Your task to perform on an android device: refresh tabs in the chrome app Image 0: 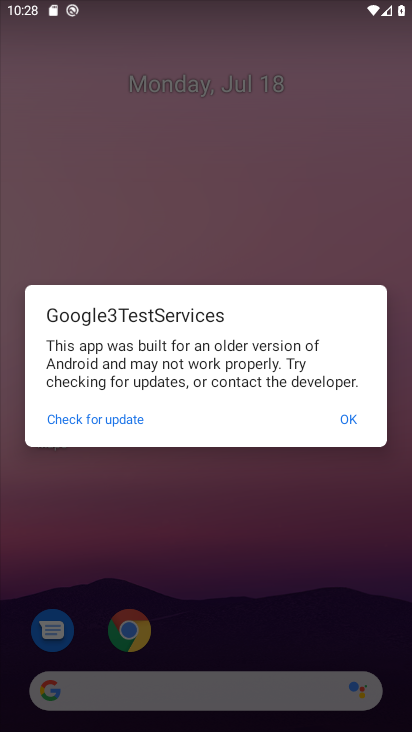
Step 0: click (358, 414)
Your task to perform on an android device: refresh tabs in the chrome app Image 1: 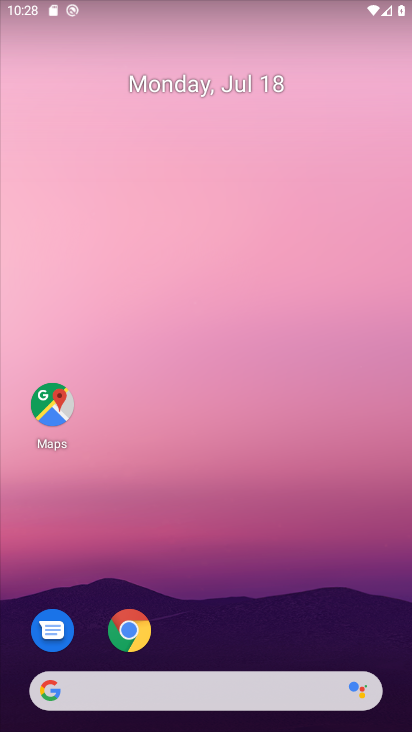
Step 1: click (121, 640)
Your task to perform on an android device: refresh tabs in the chrome app Image 2: 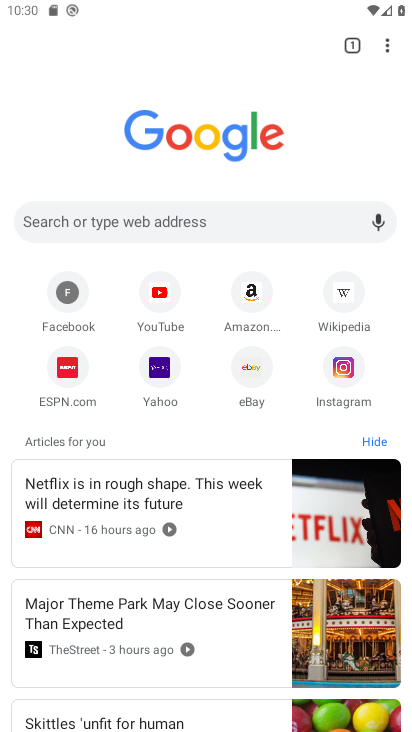
Step 2: click (389, 44)
Your task to perform on an android device: refresh tabs in the chrome app Image 3: 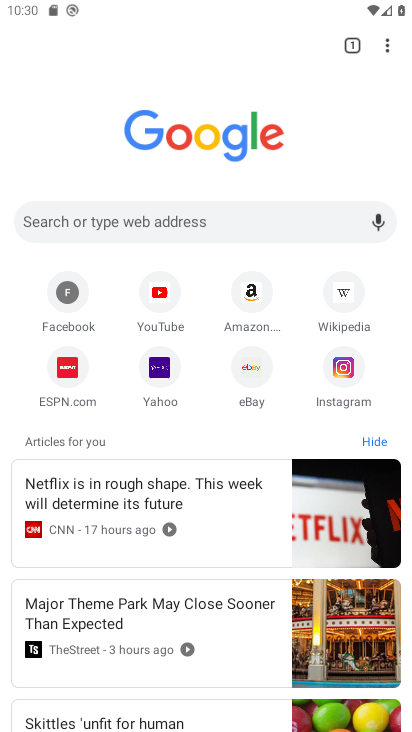
Step 3: click (388, 44)
Your task to perform on an android device: refresh tabs in the chrome app Image 4: 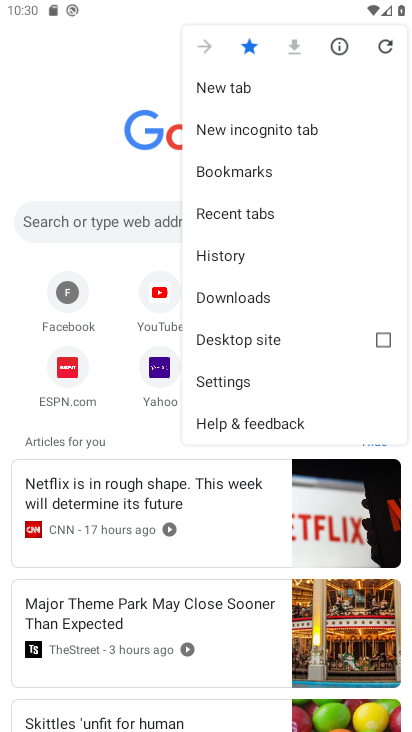
Step 4: click (383, 47)
Your task to perform on an android device: refresh tabs in the chrome app Image 5: 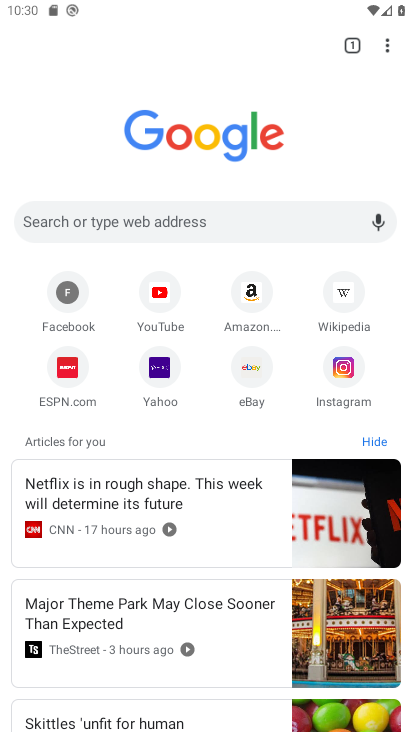
Step 5: task complete